Your task to perform on an android device: change your default location settings in chrome Image 0: 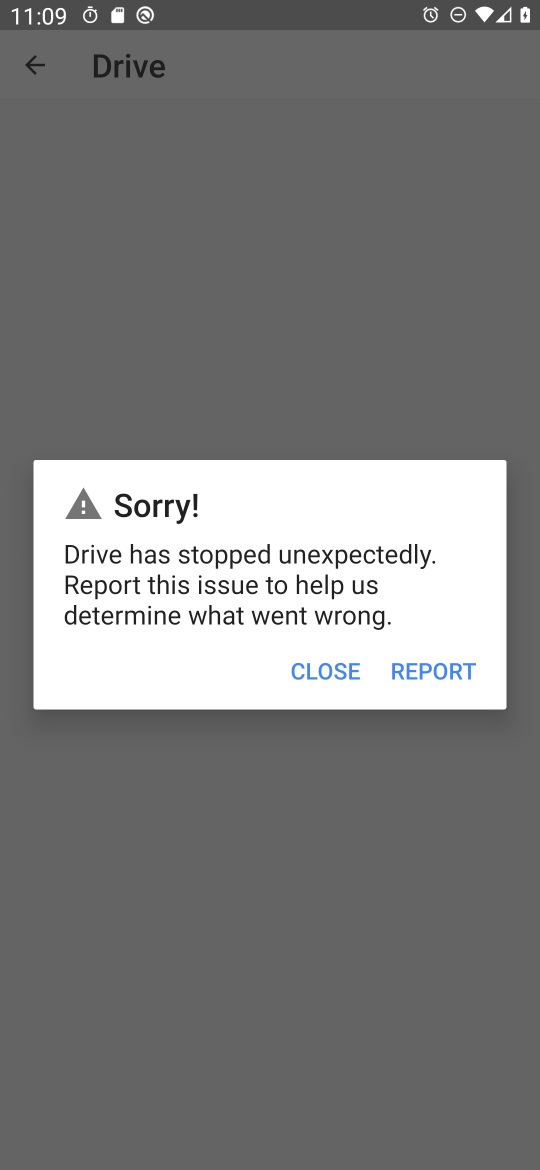
Step 0: press home button
Your task to perform on an android device: change your default location settings in chrome Image 1: 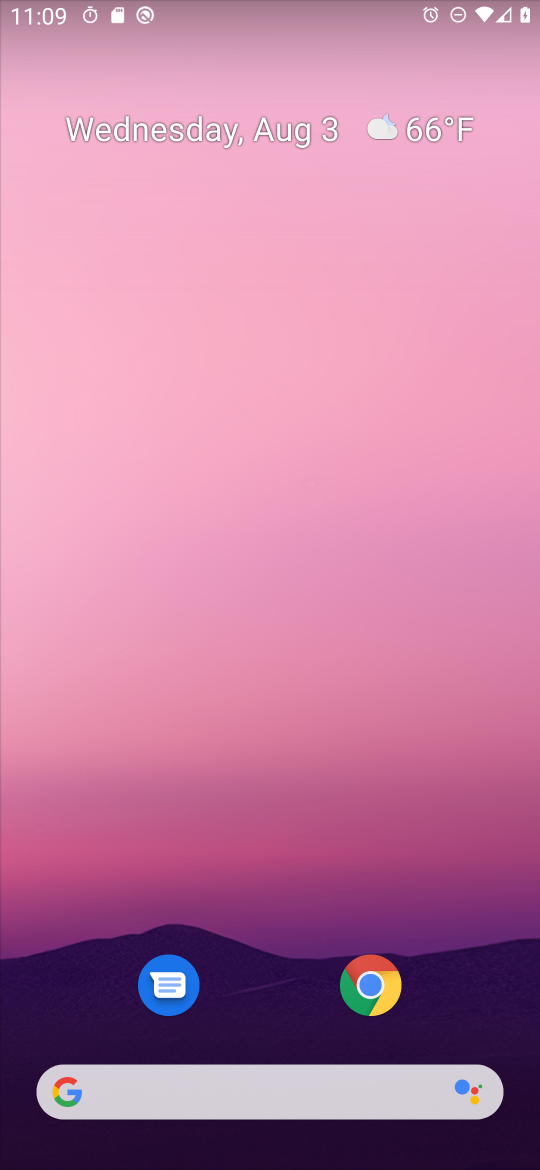
Step 1: click (362, 975)
Your task to perform on an android device: change your default location settings in chrome Image 2: 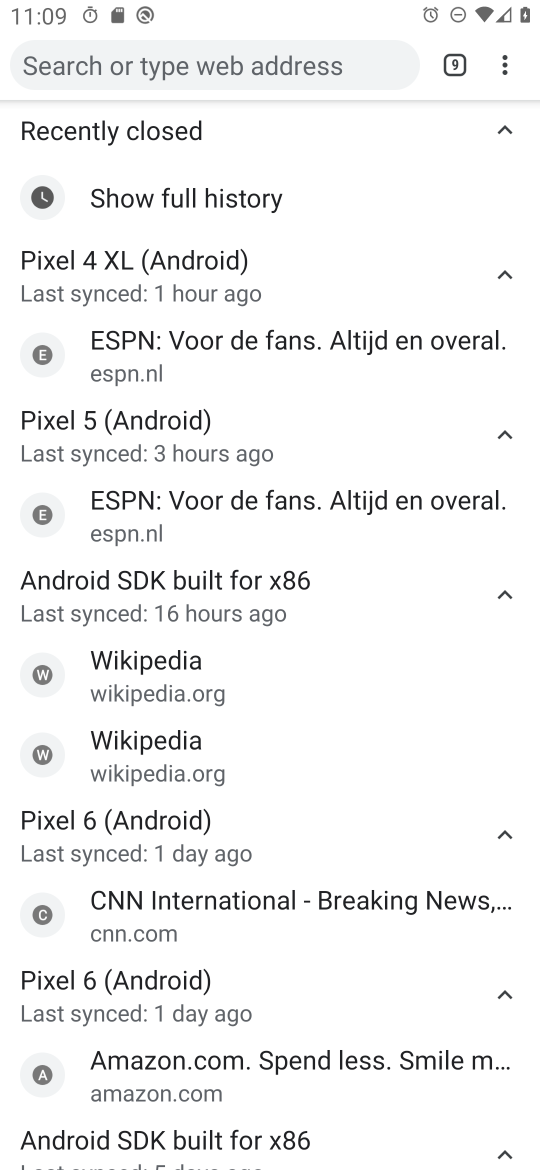
Step 2: click (509, 73)
Your task to perform on an android device: change your default location settings in chrome Image 3: 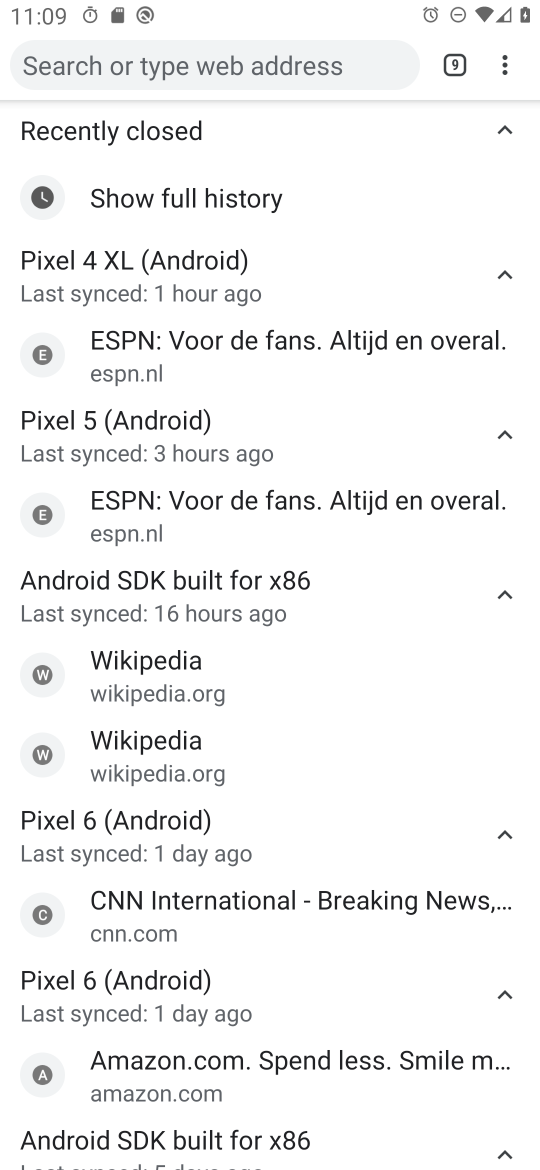
Step 3: drag from (513, 54) to (295, 532)
Your task to perform on an android device: change your default location settings in chrome Image 4: 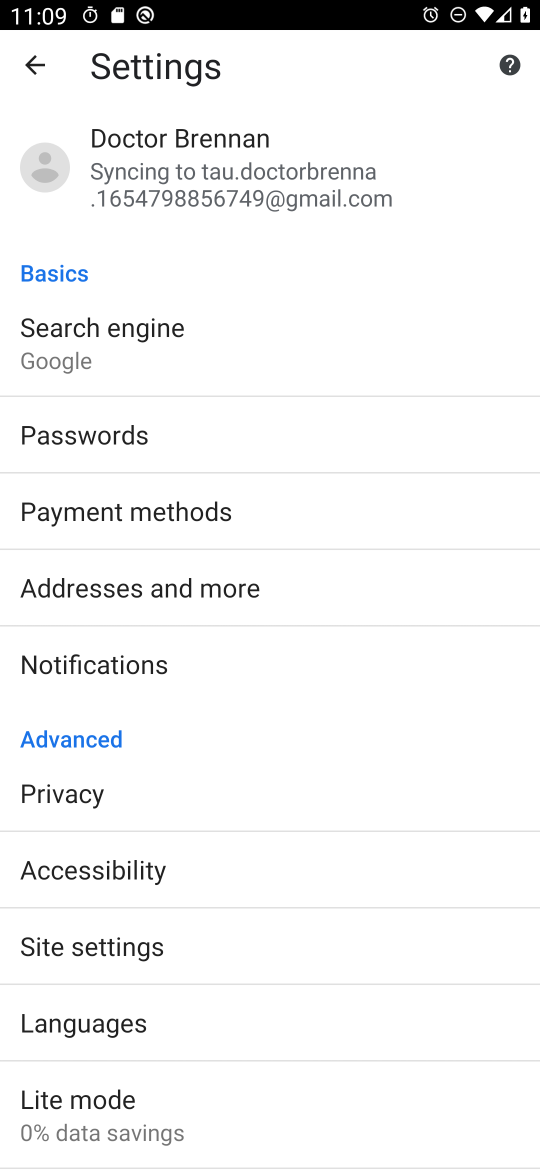
Step 4: click (218, 951)
Your task to perform on an android device: change your default location settings in chrome Image 5: 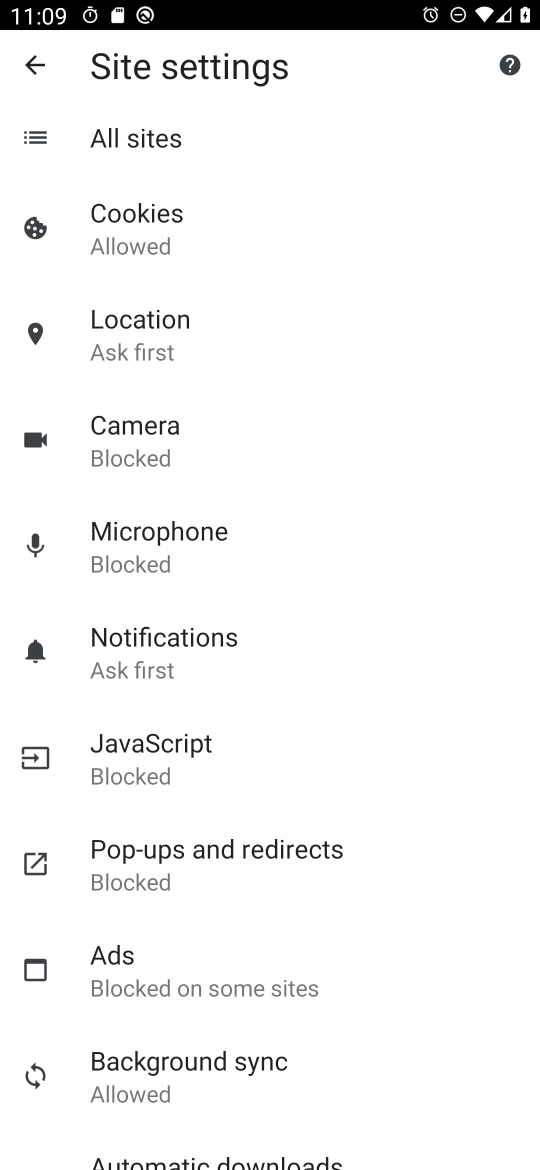
Step 5: click (192, 340)
Your task to perform on an android device: change your default location settings in chrome Image 6: 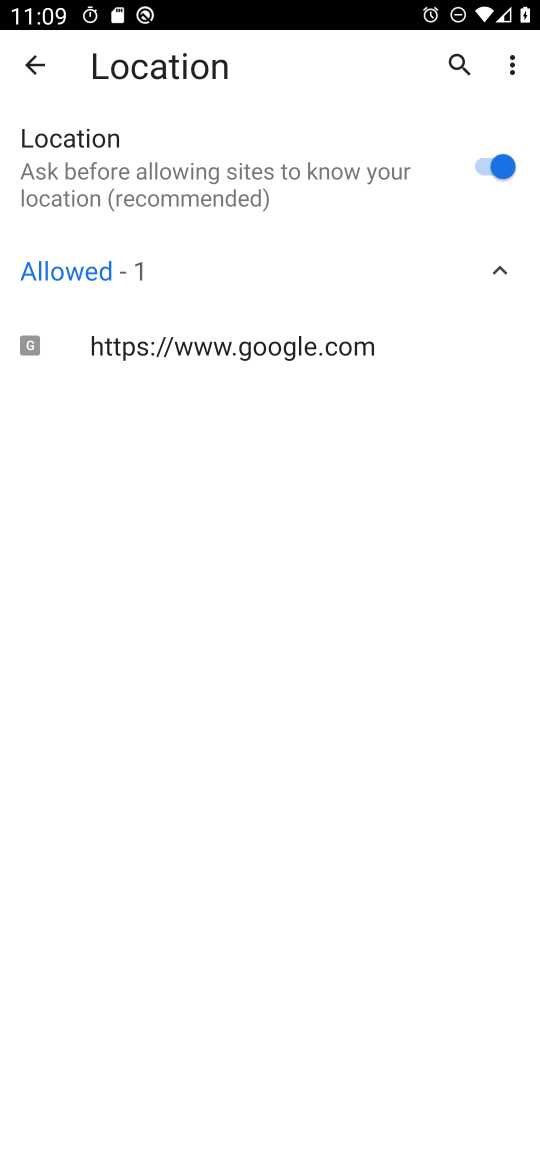
Step 6: click (462, 163)
Your task to perform on an android device: change your default location settings in chrome Image 7: 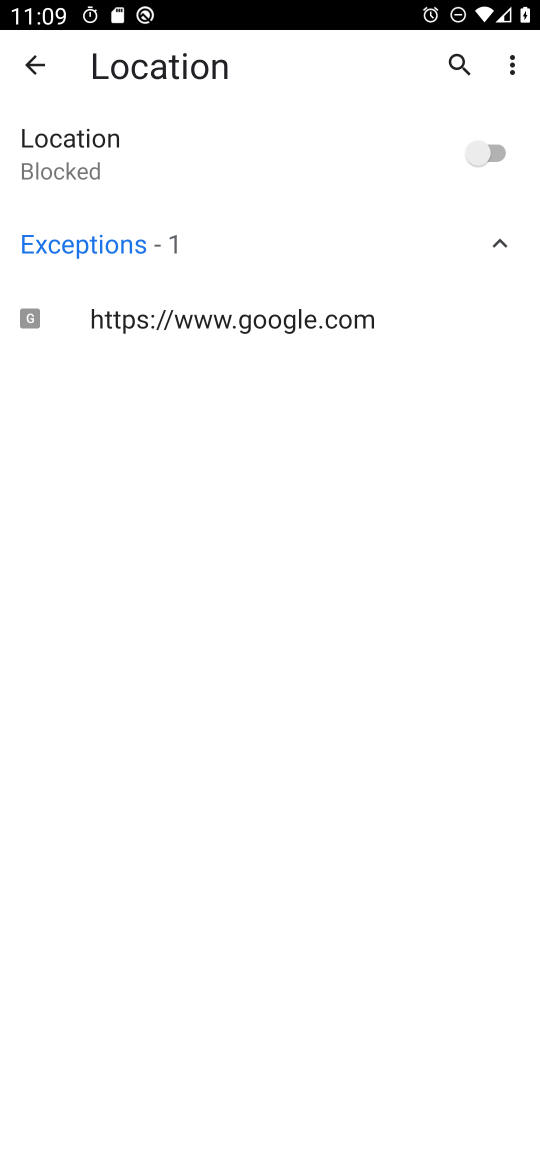
Step 7: task complete